Your task to perform on an android device: toggle airplane mode Image 0: 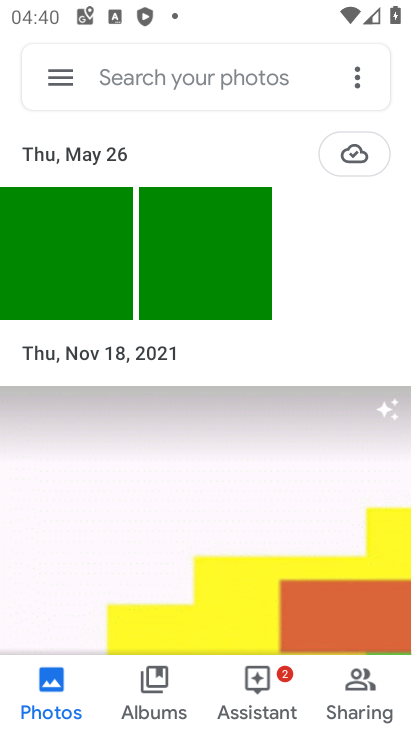
Step 0: press home button
Your task to perform on an android device: toggle airplane mode Image 1: 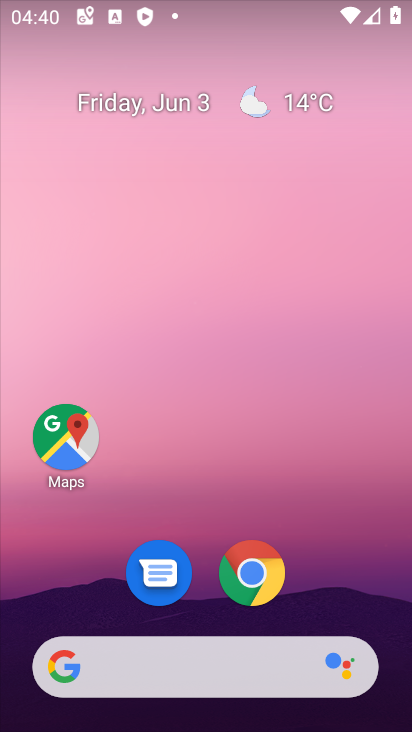
Step 1: drag from (197, 659) to (227, 90)
Your task to perform on an android device: toggle airplane mode Image 2: 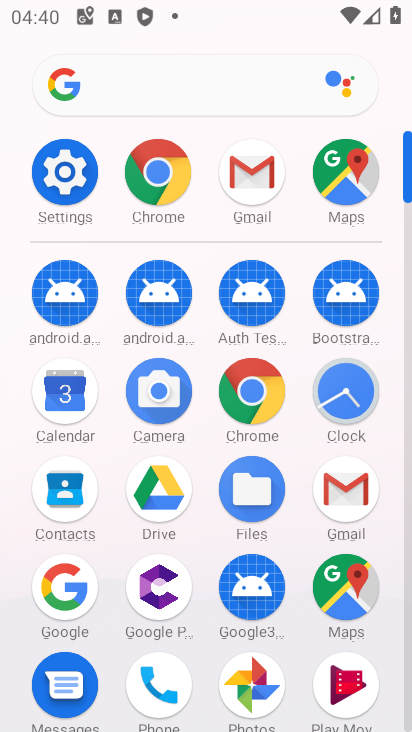
Step 2: click (53, 168)
Your task to perform on an android device: toggle airplane mode Image 3: 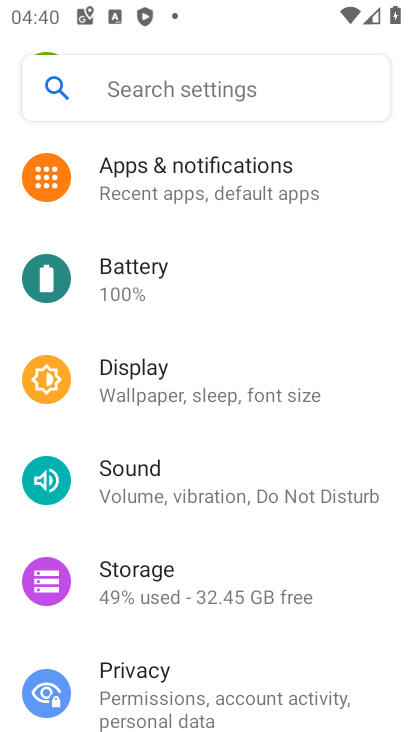
Step 3: drag from (180, 243) to (213, 694)
Your task to perform on an android device: toggle airplane mode Image 4: 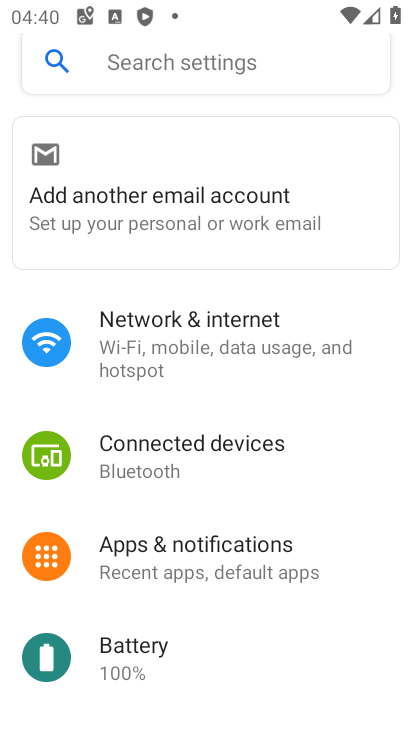
Step 4: click (256, 382)
Your task to perform on an android device: toggle airplane mode Image 5: 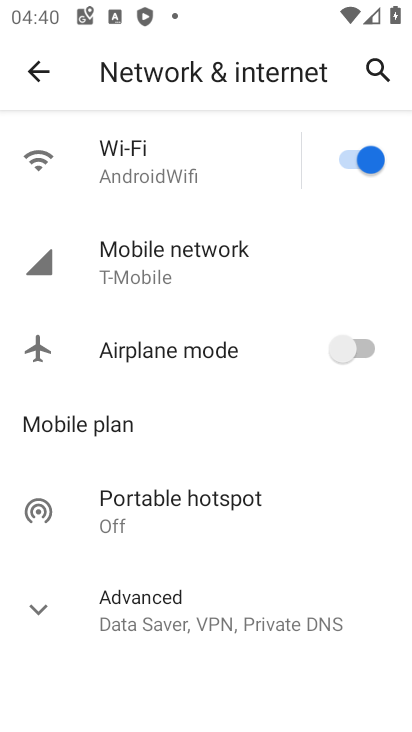
Step 5: click (360, 354)
Your task to perform on an android device: toggle airplane mode Image 6: 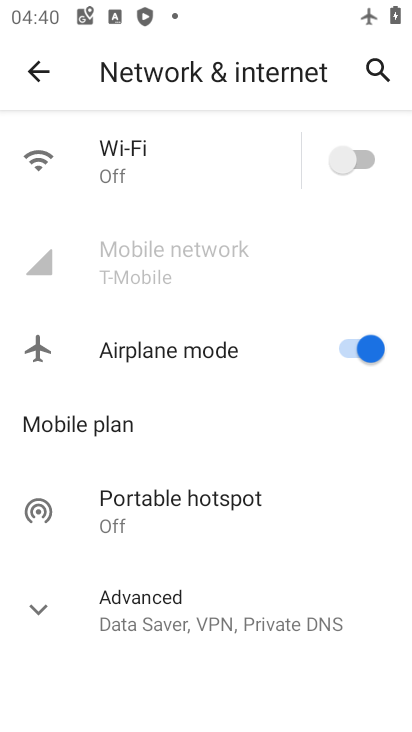
Step 6: task complete